Your task to perform on an android device: Open internet settings Image 0: 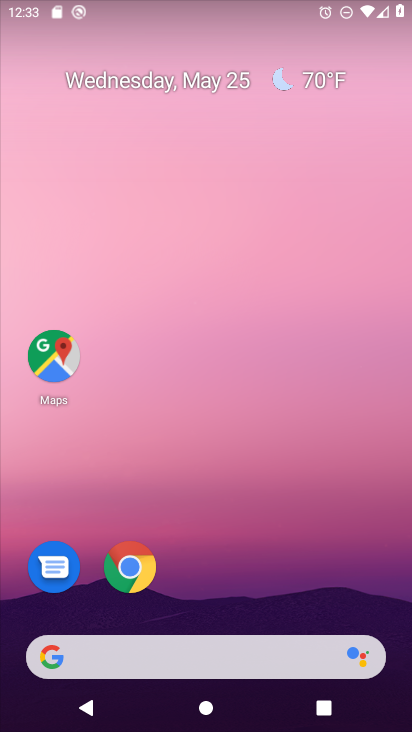
Step 0: drag from (397, 672) to (360, 350)
Your task to perform on an android device: Open internet settings Image 1: 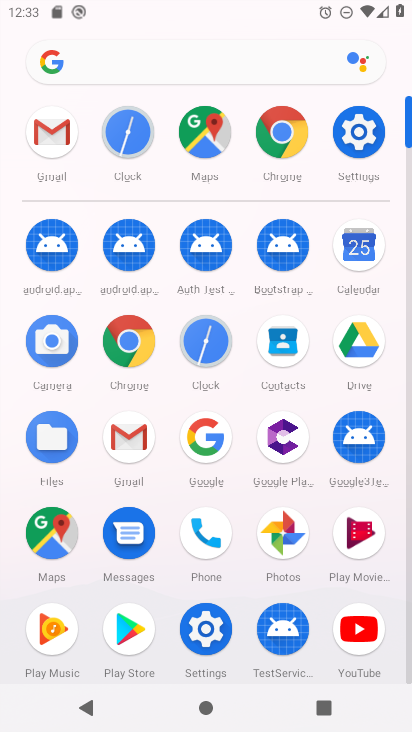
Step 1: click (344, 133)
Your task to perform on an android device: Open internet settings Image 2: 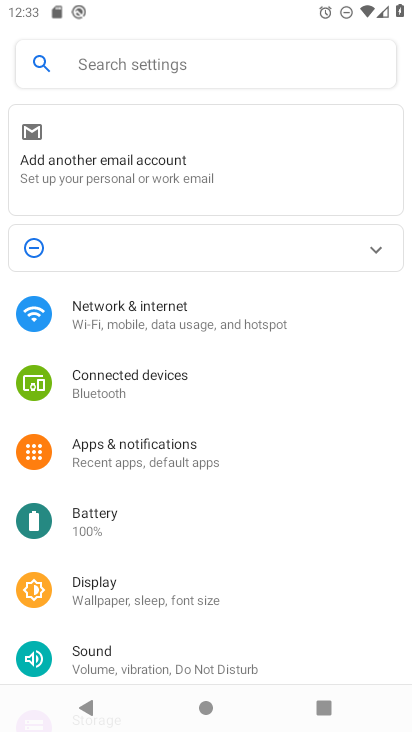
Step 2: click (138, 321)
Your task to perform on an android device: Open internet settings Image 3: 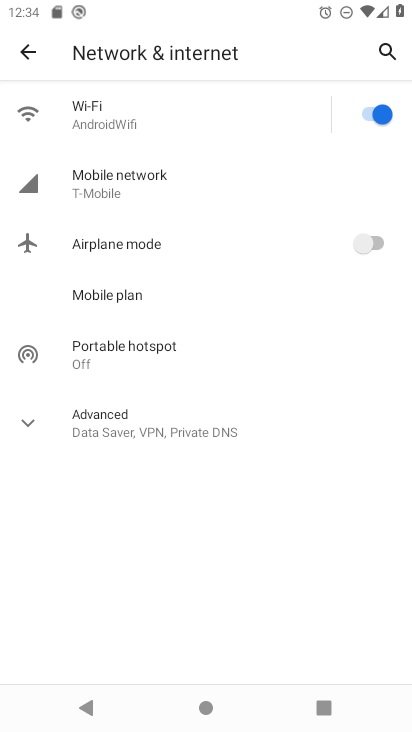
Step 3: click (106, 120)
Your task to perform on an android device: Open internet settings Image 4: 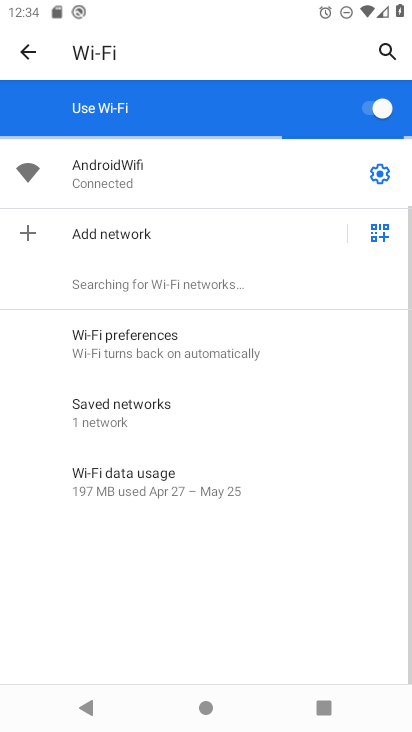
Step 4: click (372, 170)
Your task to perform on an android device: Open internet settings Image 5: 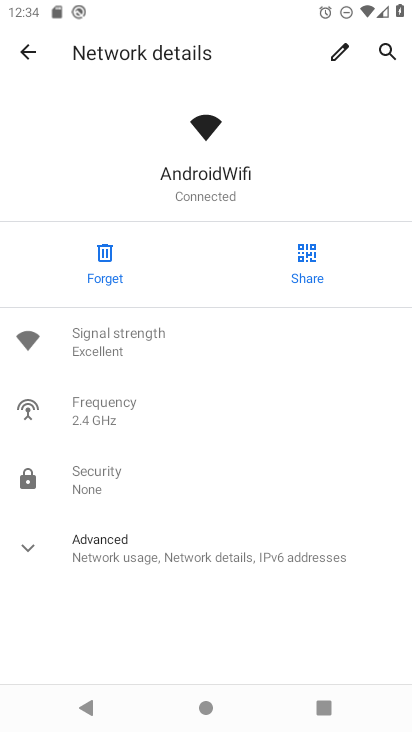
Step 5: click (19, 54)
Your task to perform on an android device: Open internet settings Image 6: 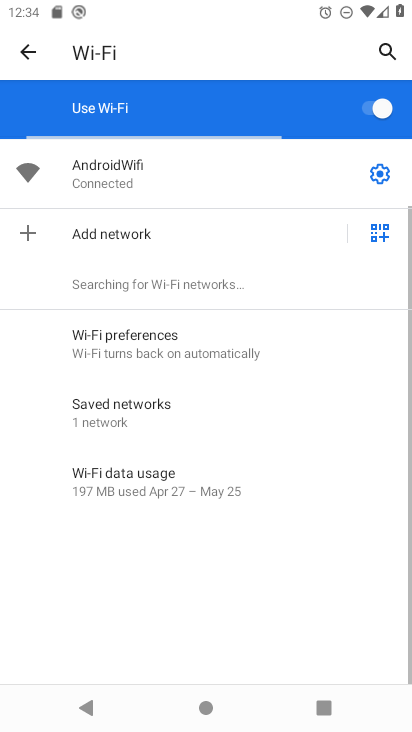
Step 6: task complete